Your task to perform on an android device: search for starred emails in the gmail app Image 0: 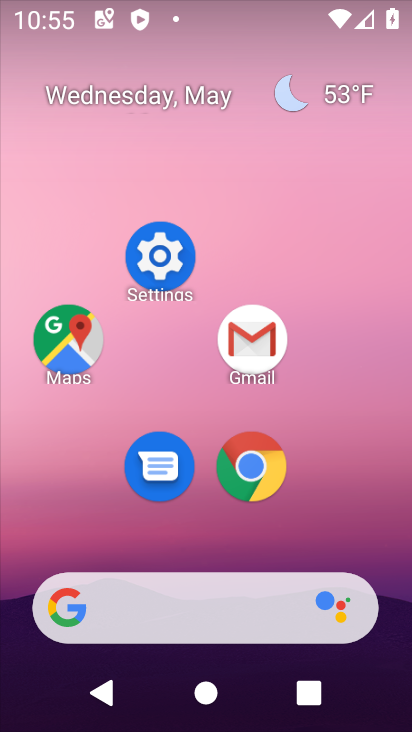
Step 0: drag from (186, 556) to (278, 48)
Your task to perform on an android device: search for starred emails in the gmail app Image 1: 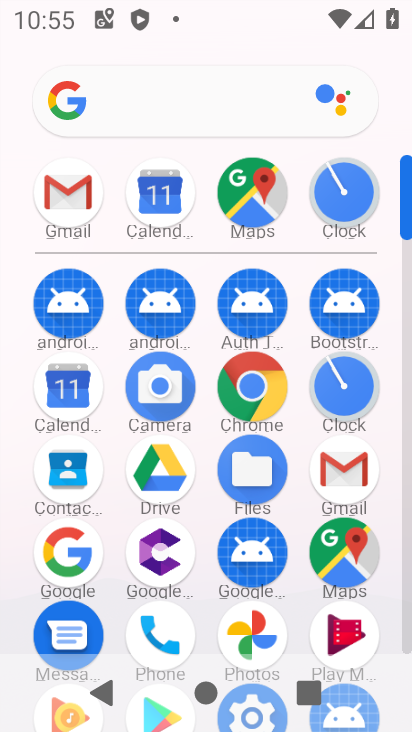
Step 1: click (340, 454)
Your task to perform on an android device: search for starred emails in the gmail app Image 2: 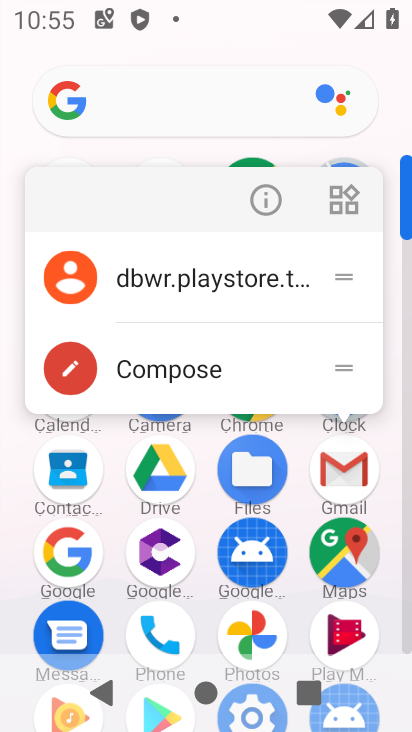
Step 2: click (186, 282)
Your task to perform on an android device: search for starred emails in the gmail app Image 3: 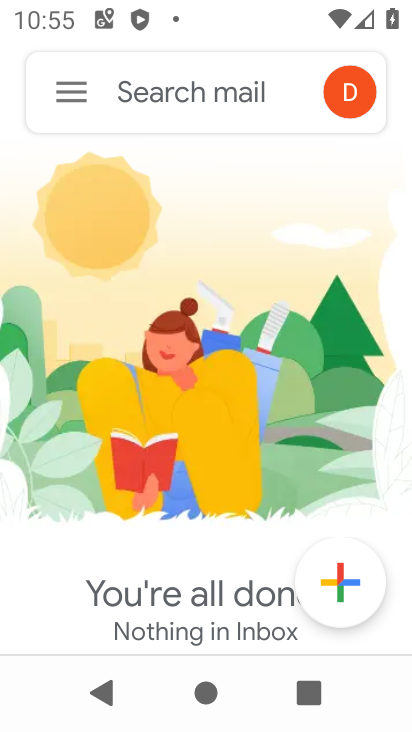
Step 3: click (74, 82)
Your task to perform on an android device: search for starred emails in the gmail app Image 4: 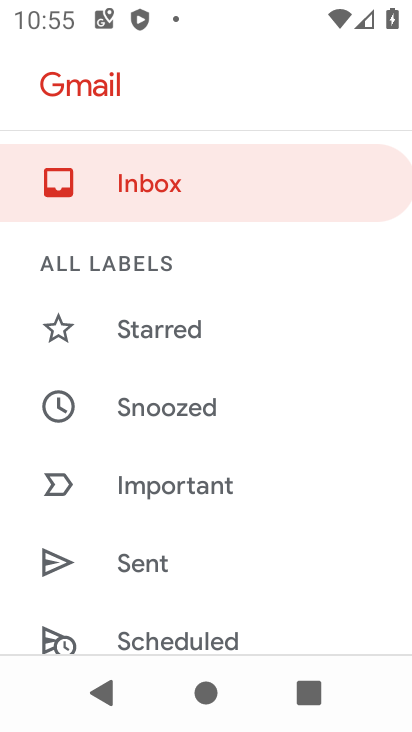
Step 4: click (216, 297)
Your task to perform on an android device: search for starred emails in the gmail app Image 5: 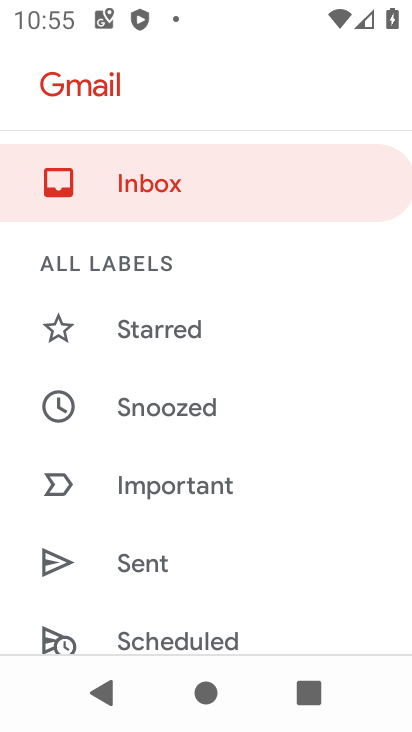
Step 5: click (162, 320)
Your task to perform on an android device: search for starred emails in the gmail app Image 6: 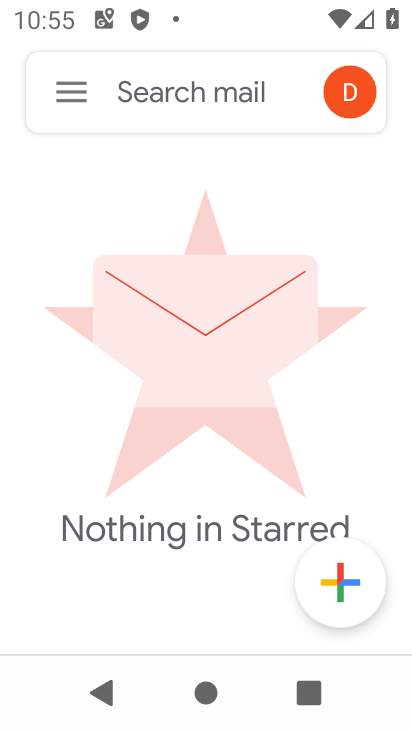
Step 6: task complete